Your task to perform on an android device: turn off javascript in the chrome app Image 0: 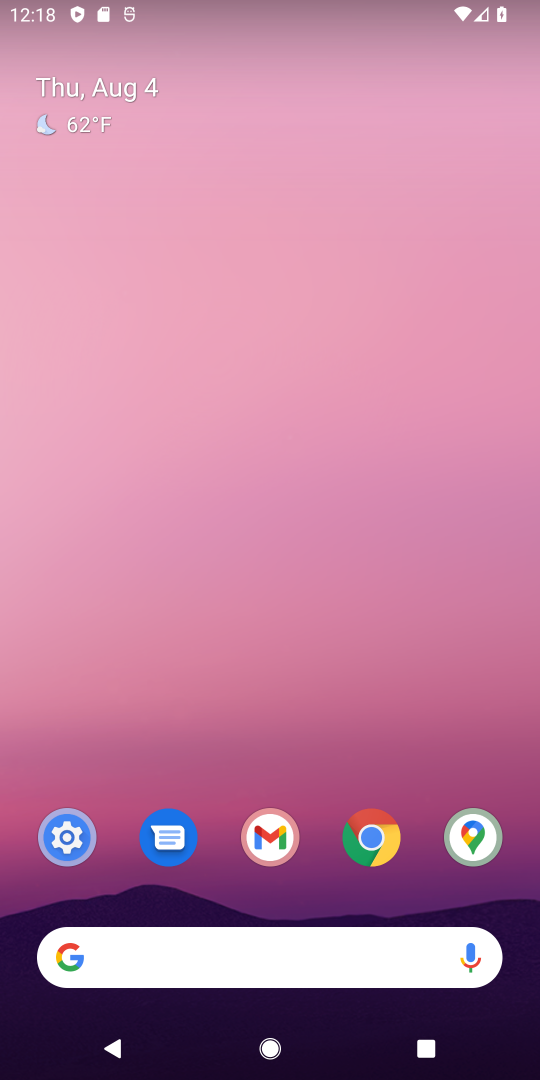
Step 0: click (371, 825)
Your task to perform on an android device: turn off javascript in the chrome app Image 1: 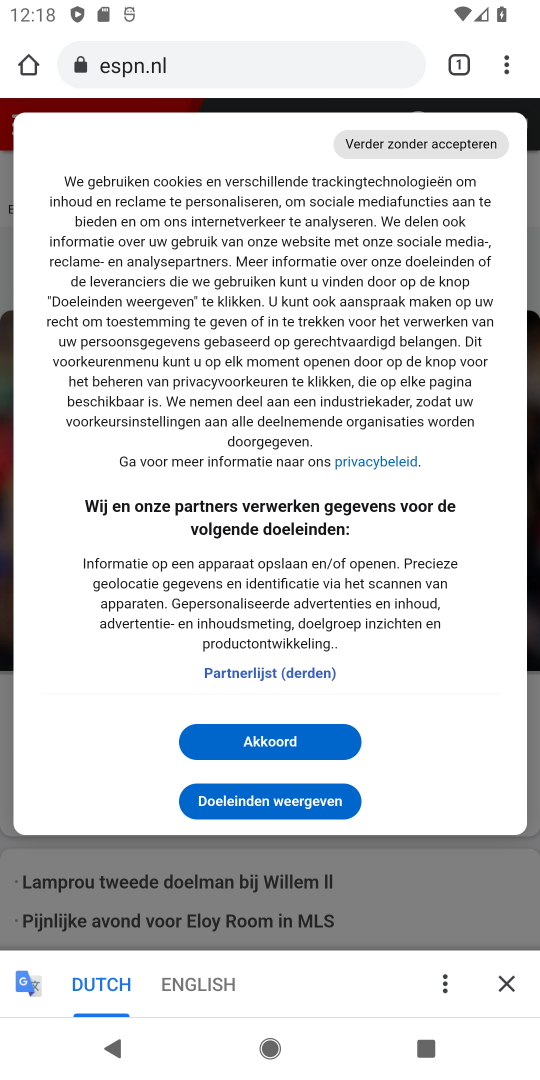
Step 1: click (510, 54)
Your task to perform on an android device: turn off javascript in the chrome app Image 2: 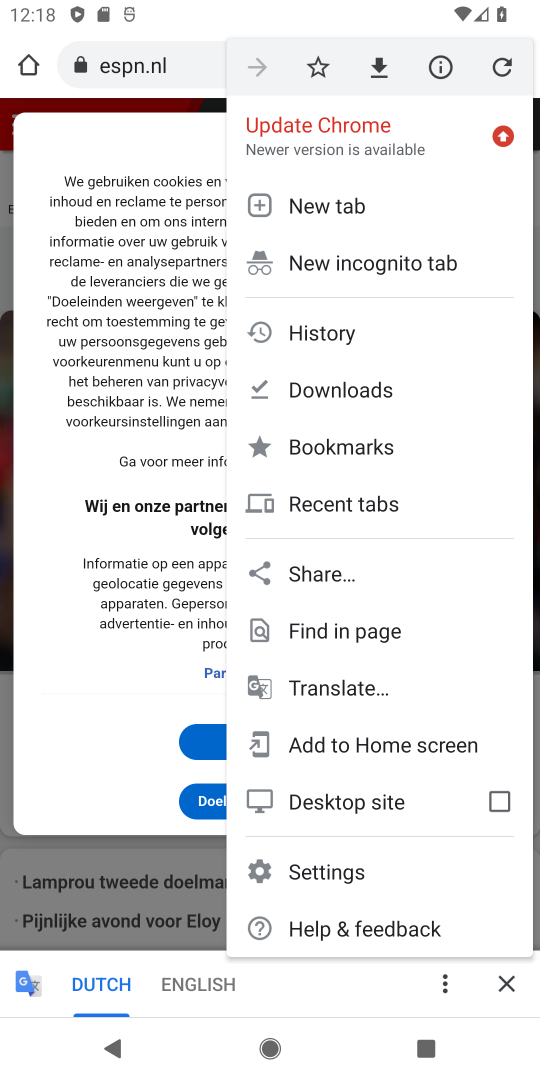
Step 2: click (294, 865)
Your task to perform on an android device: turn off javascript in the chrome app Image 3: 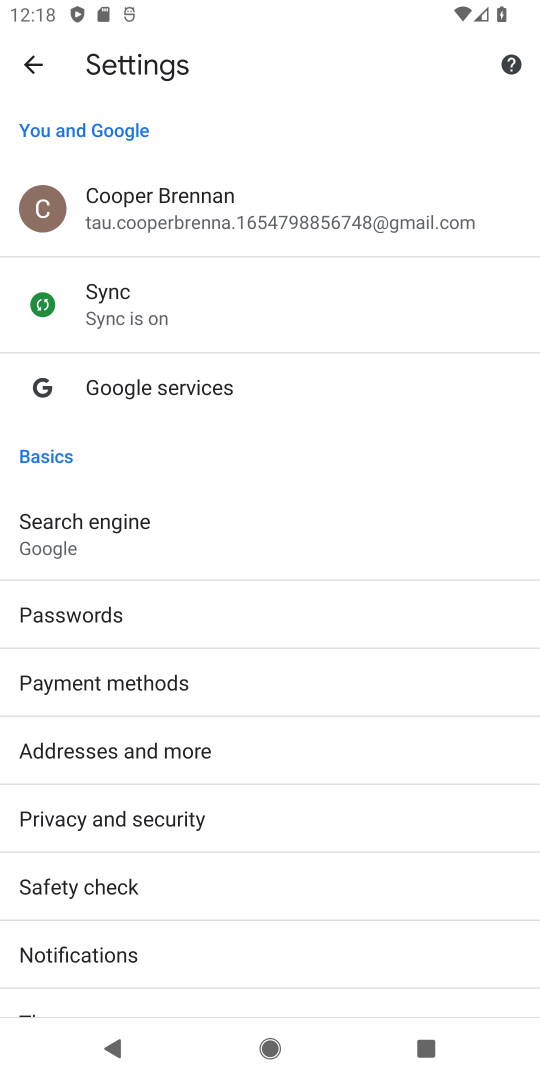
Step 3: drag from (199, 950) to (207, 211)
Your task to perform on an android device: turn off javascript in the chrome app Image 4: 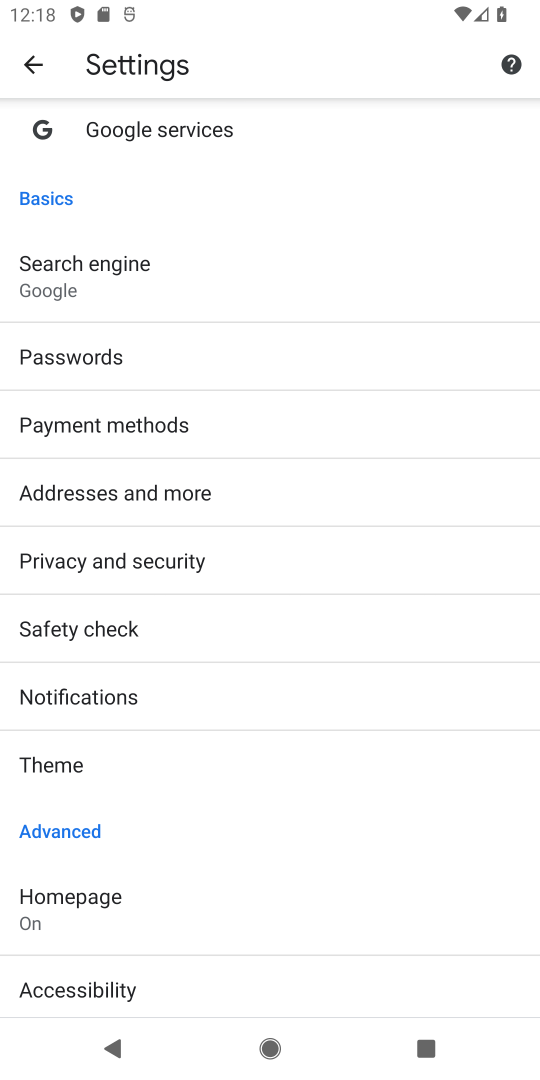
Step 4: drag from (141, 832) to (154, 291)
Your task to perform on an android device: turn off javascript in the chrome app Image 5: 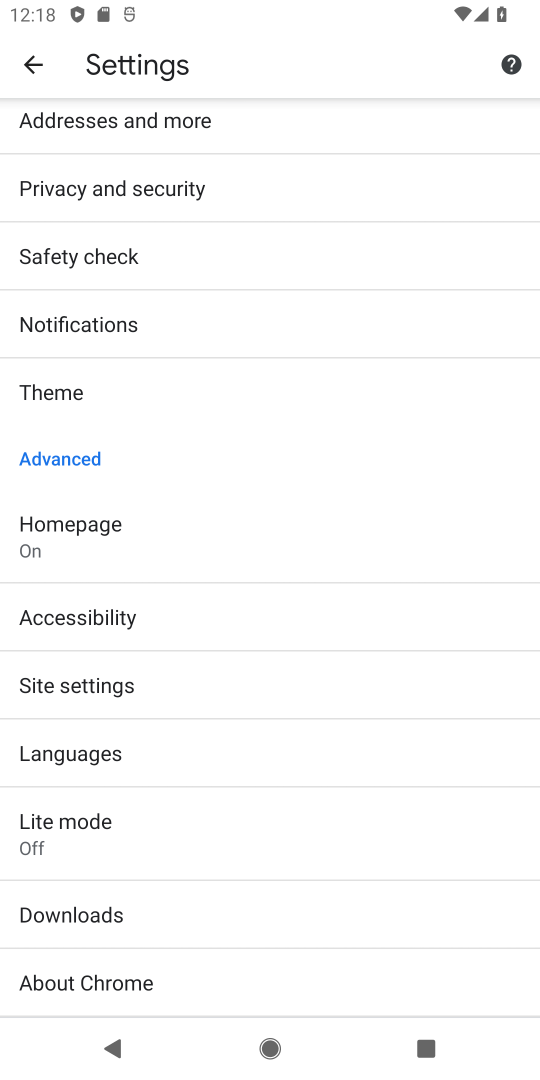
Step 5: click (69, 691)
Your task to perform on an android device: turn off javascript in the chrome app Image 6: 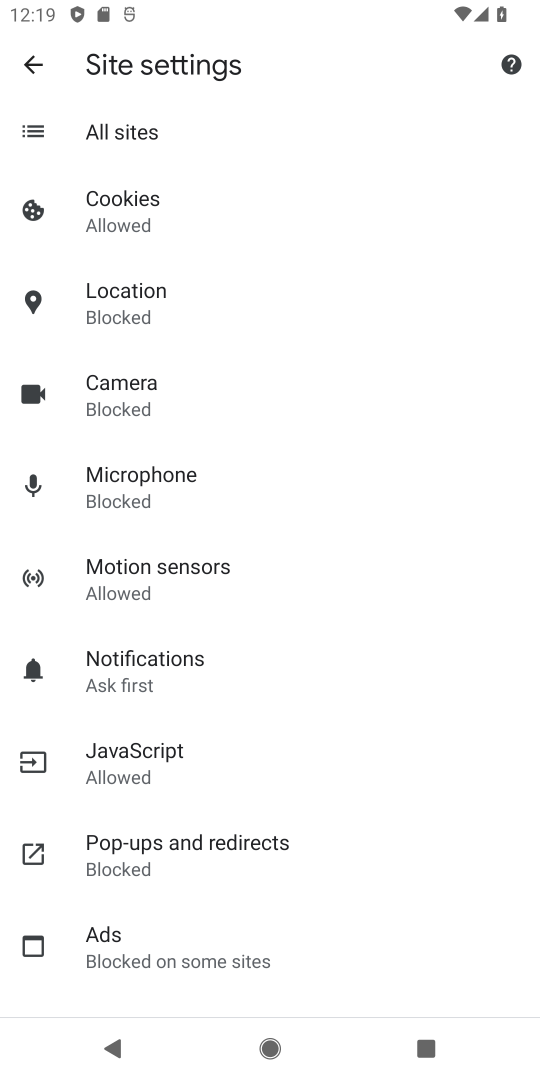
Step 6: click (199, 748)
Your task to perform on an android device: turn off javascript in the chrome app Image 7: 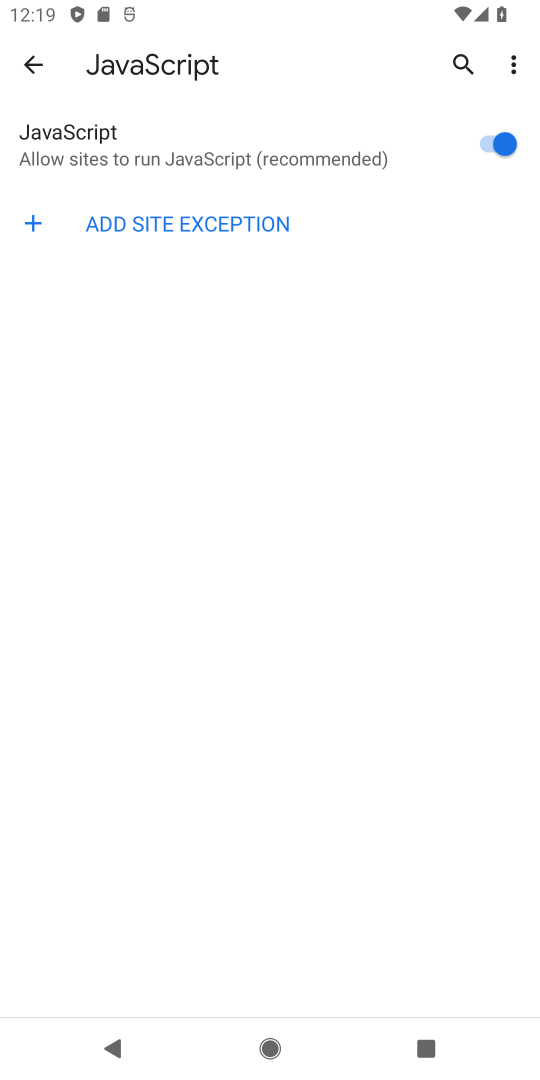
Step 7: click (495, 154)
Your task to perform on an android device: turn off javascript in the chrome app Image 8: 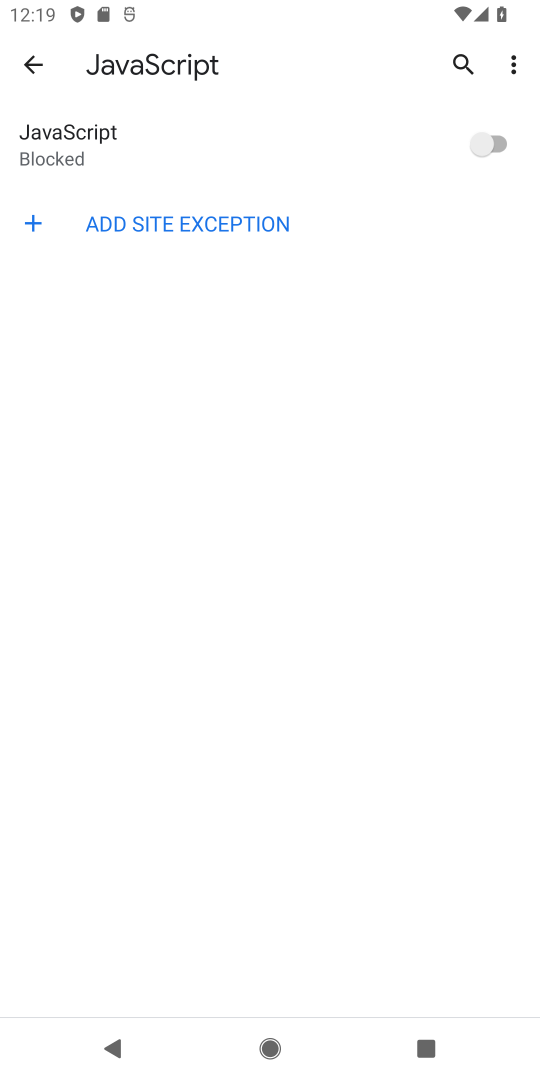
Step 8: task complete